Your task to perform on an android device: Open internet settings Image 0: 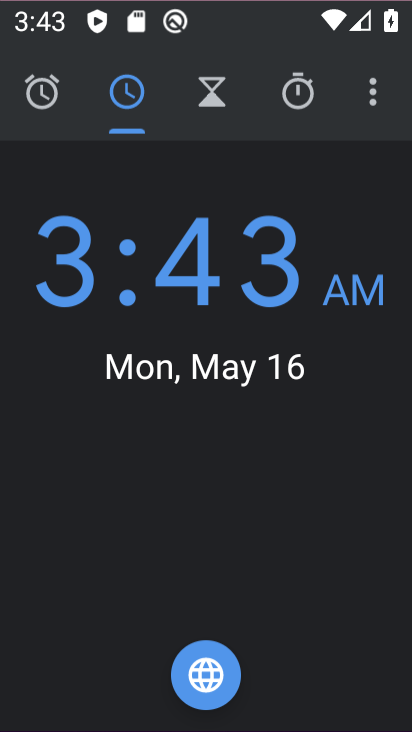
Step 0: drag from (189, 583) to (239, 19)
Your task to perform on an android device: Open internet settings Image 1: 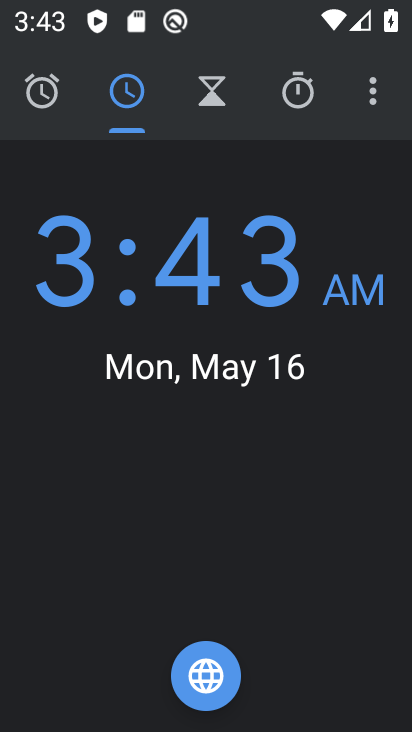
Step 1: press home button
Your task to perform on an android device: Open internet settings Image 2: 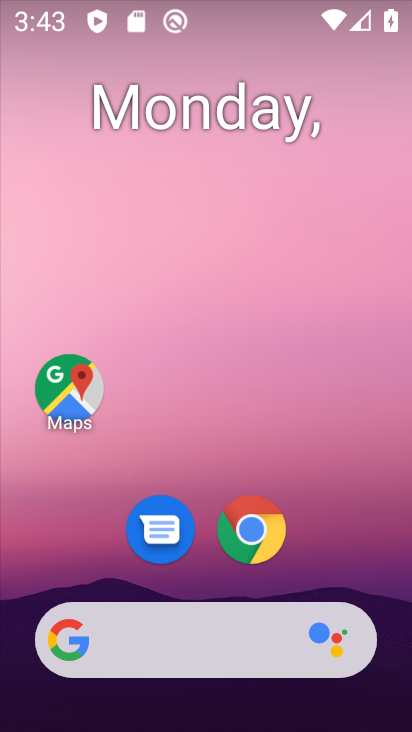
Step 2: drag from (230, 576) to (292, 0)
Your task to perform on an android device: Open internet settings Image 3: 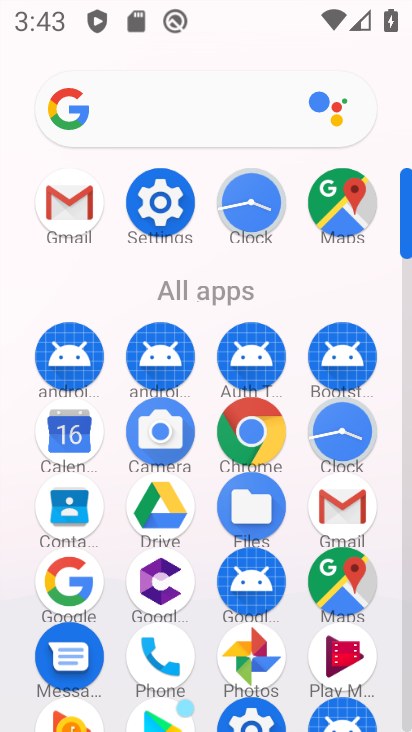
Step 3: click (172, 218)
Your task to perform on an android device: Open internet settings Image 4: 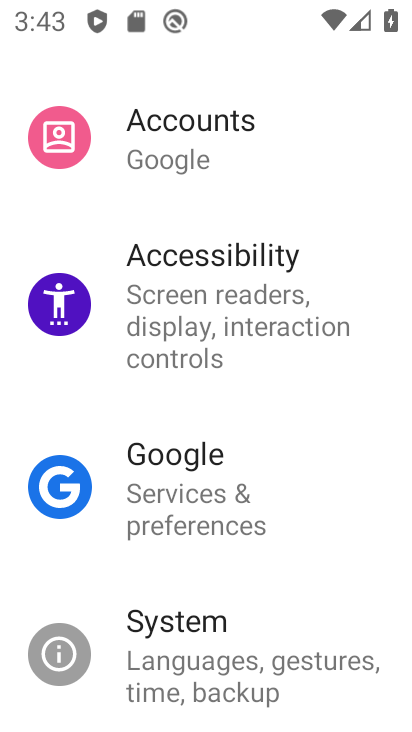
Step 4: drag from (230, 195) to (216, 528)
Your task to perform on an android device: Open internet settings Image 5: 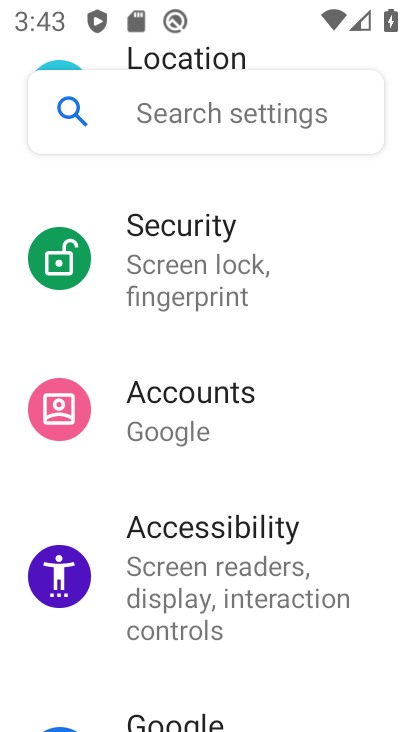
Step 5: drag from (265, 303) to (256, 728)
Your task to perform on an android device: Open internet settings Image 6: 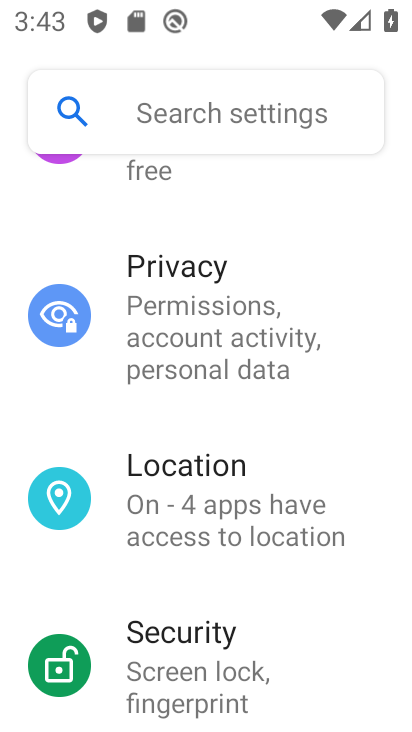
Step 6: drag from (257, 346) to (250, 642)
Your task to perform on an android device: Open internet settings Image 7: 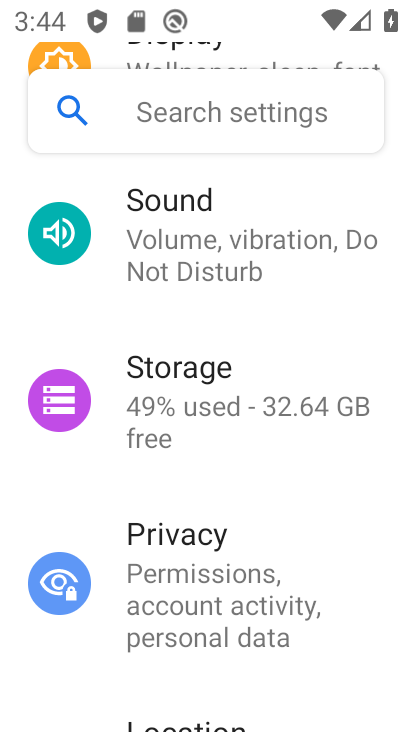
Step 7: drag from (262, 220) to (237, 584)
Your task to perform on an android device: Open internet settings Image 8: 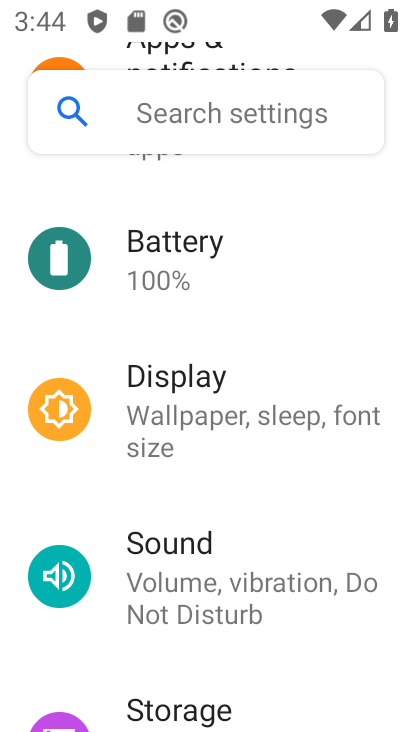
Step 8: drag from (244, 530) to (228, 685)
Your task to perform on an android device: Open internet settings Image 9: 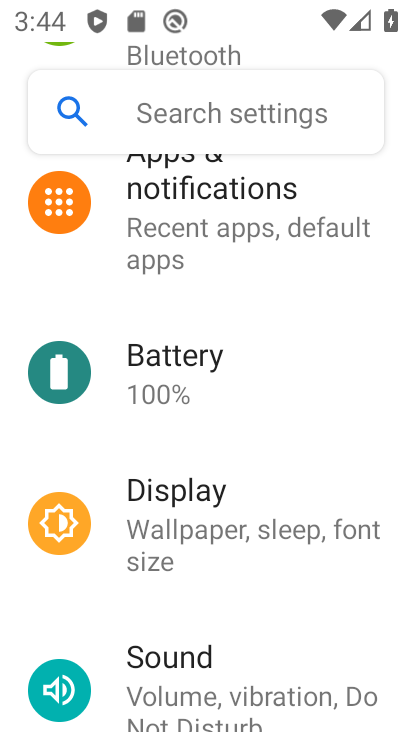
Step 9: drag from (243, 277) to (218, 651)
Your task to perform on an android device: Open internet settings Image 10: 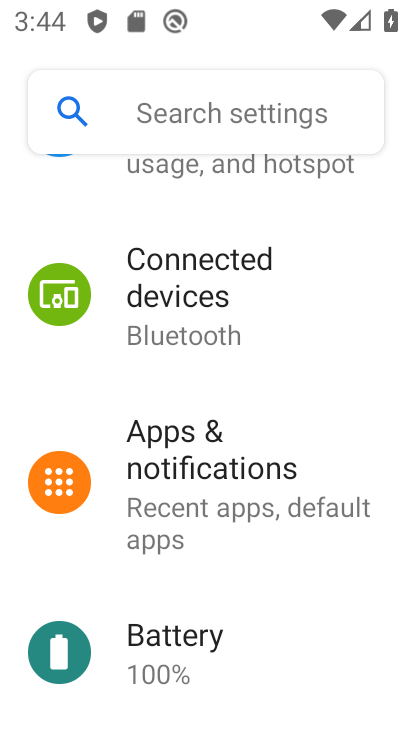
Step 10: drag from (225, 425) to (223, 714)
Your task to perform on an android device: Open internet settings Image 11: 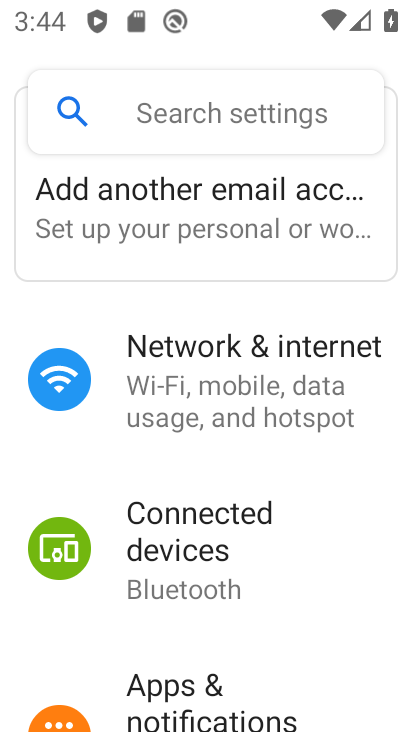
Step 11: click (244, 409)
Your task to perform on an android device: Open internet settings Image 12: 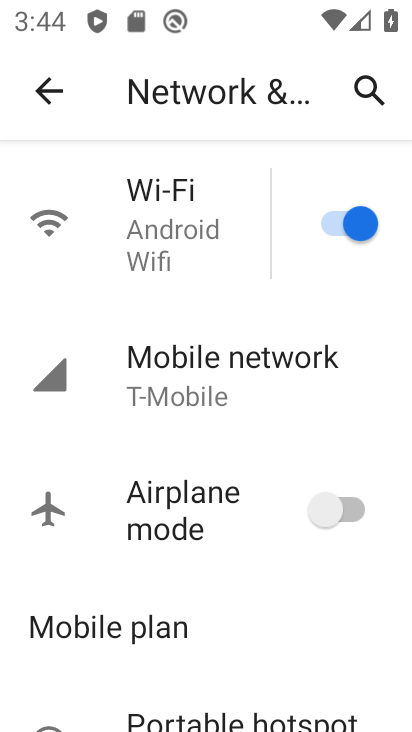
Step 12: task complete